Your task to perform on an android device: Go to accessibility settings Image 0: 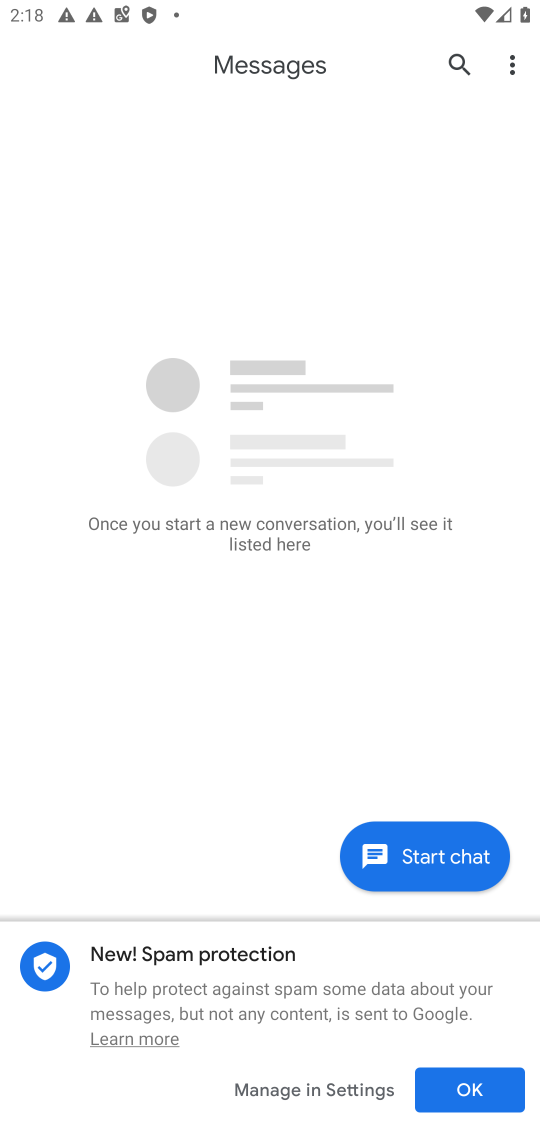
Step 0: press home button
Your task to perform on an android device: Go to accessibility settings Image 1: 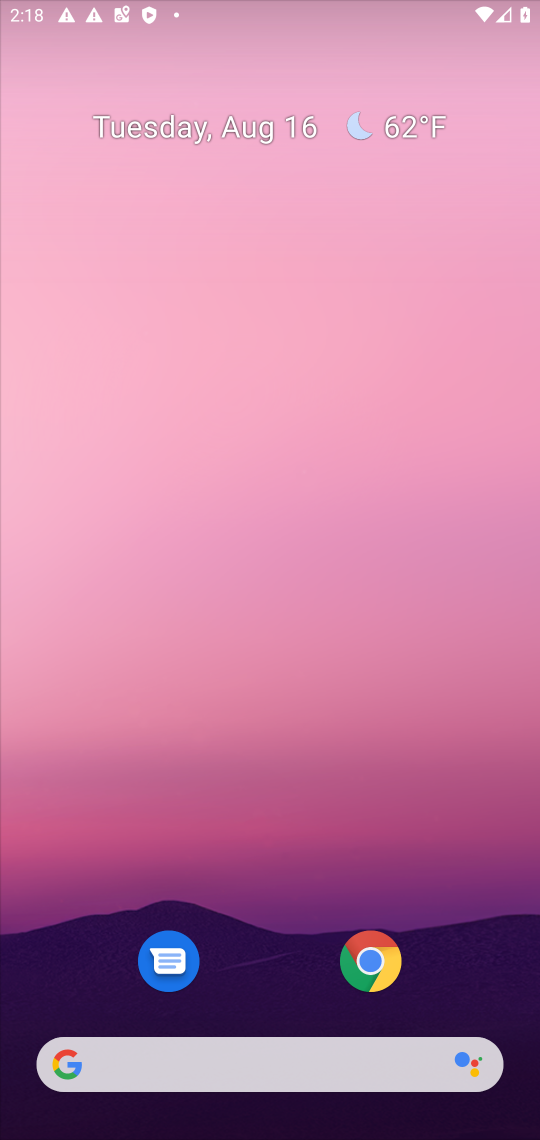
Step 1: drag from (398, 430) to (298, 107)
Your task to perform on an android device: Go to accessibility settings Image 2: 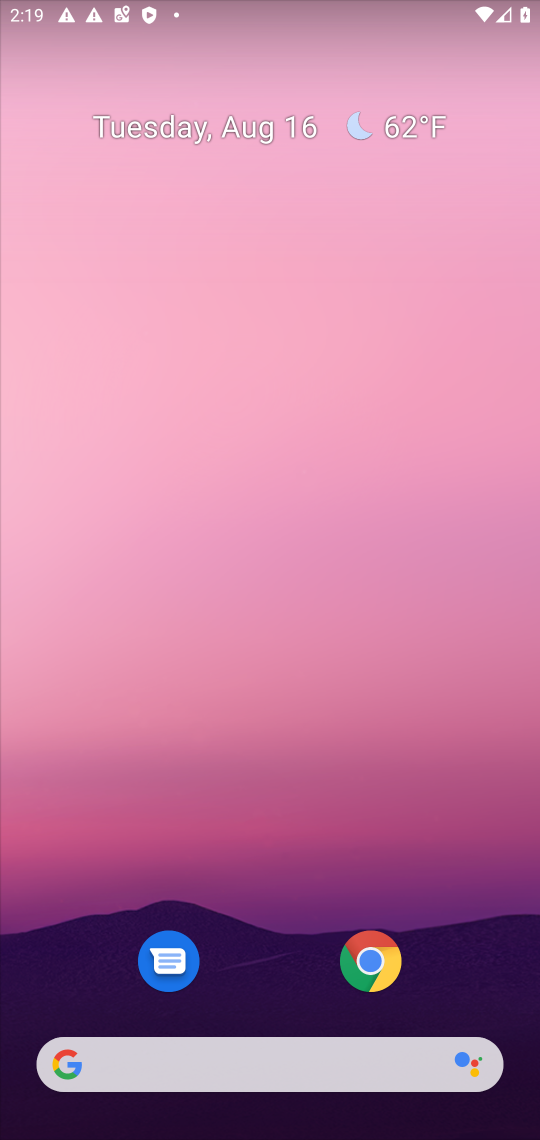
Step 2: drag from (502, 954) to (293, 22)
Your task to perform on an android device: Go to accessibility settings Image 3: 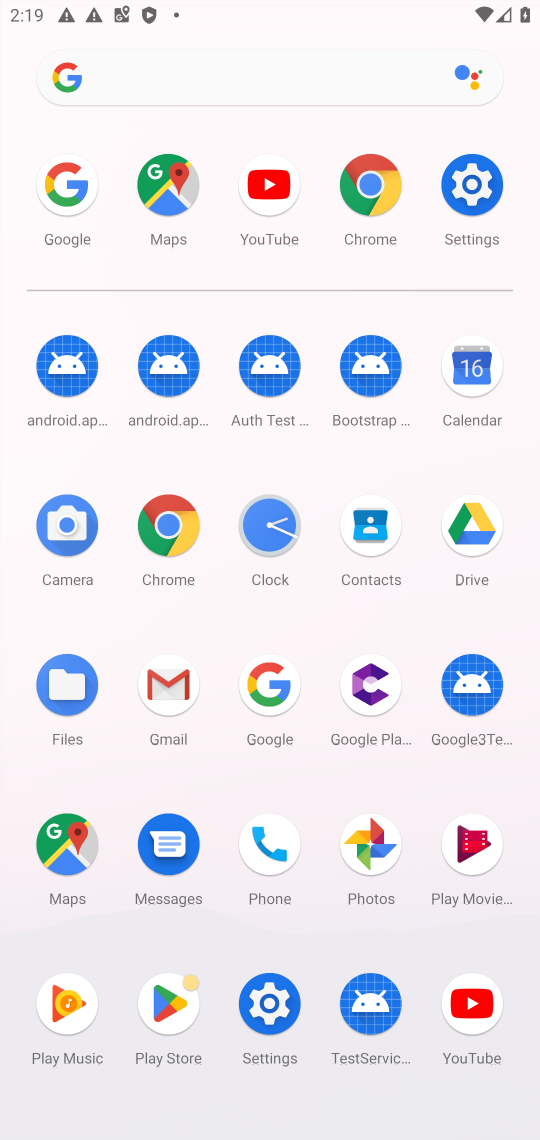
Step 3: click (266, 1002)
Your task to perform on an android device: Go to accessibility settings Image 4: 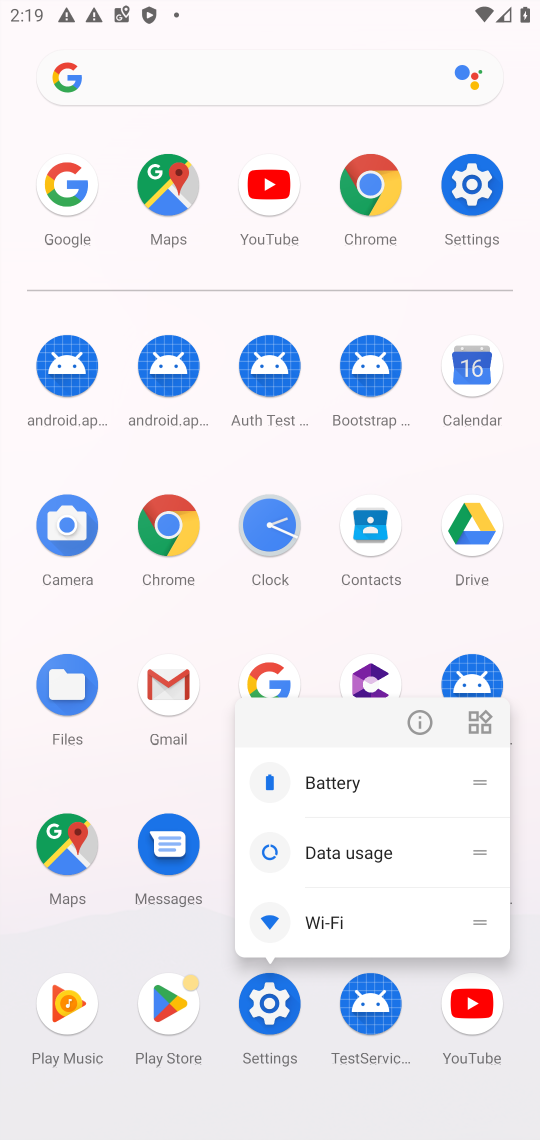
Step 4: click (266, 1002)
Your task to perform on an android device: Go to accessibility settings Image 5: 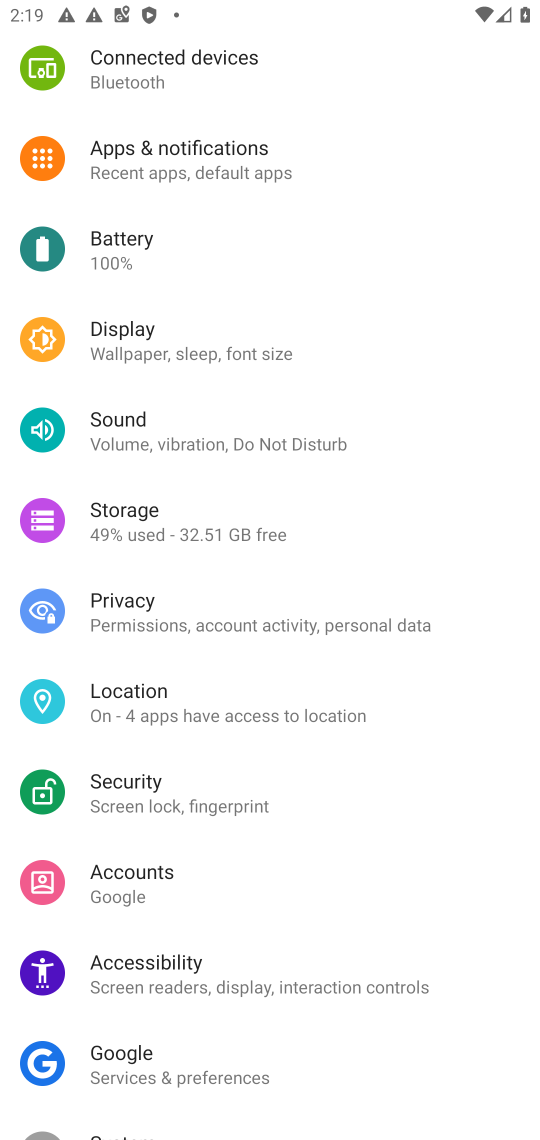
Step 5: click (157, 964)
Your task to perform on an android device: Go to accessibility settings Image 6: 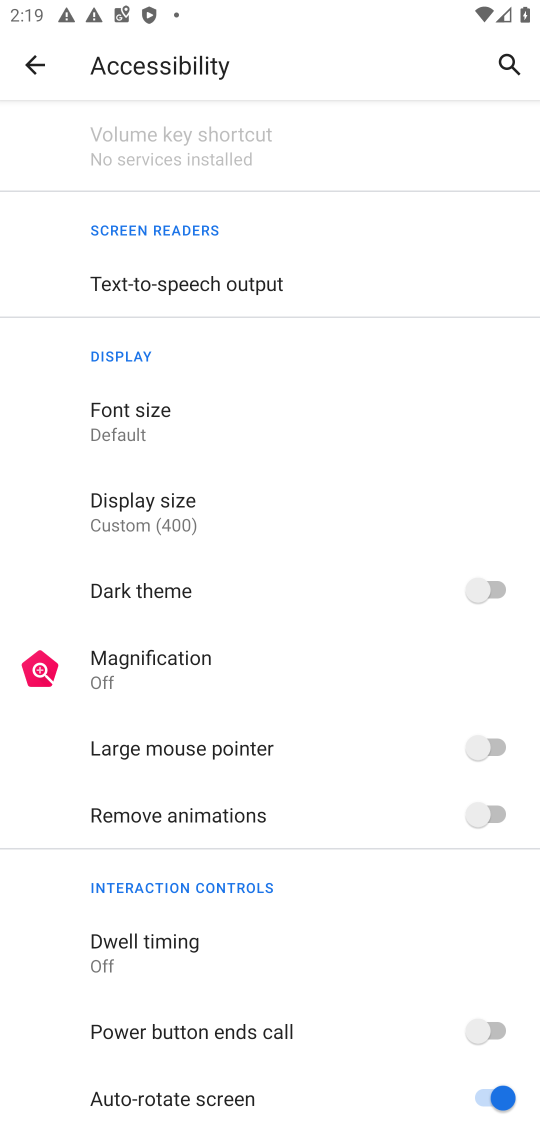
Step 6: task complete